Your task to perform on an android device: change the clock display to digital Image 0: 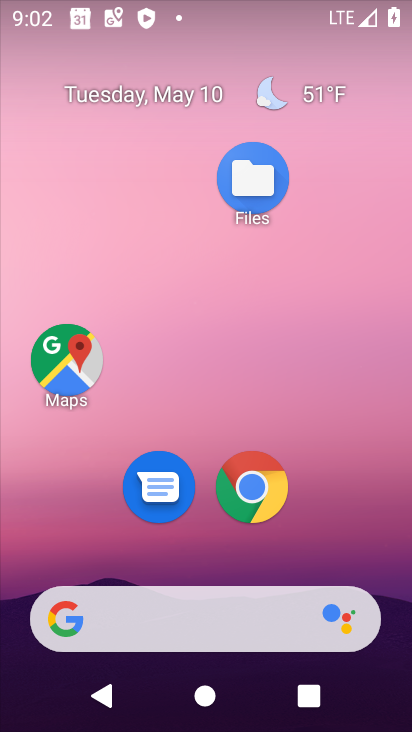
Step 0: drag from (200, 549) to (161, 12)
Your task to perform on an android device: change the clock display to digital Image 1: 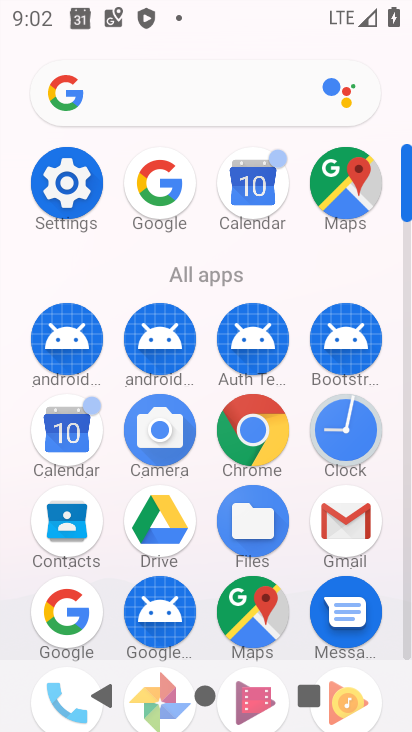
Step 1: click (343, 440)
Your task to perform on an android device: change the clock display to digital Image 2: 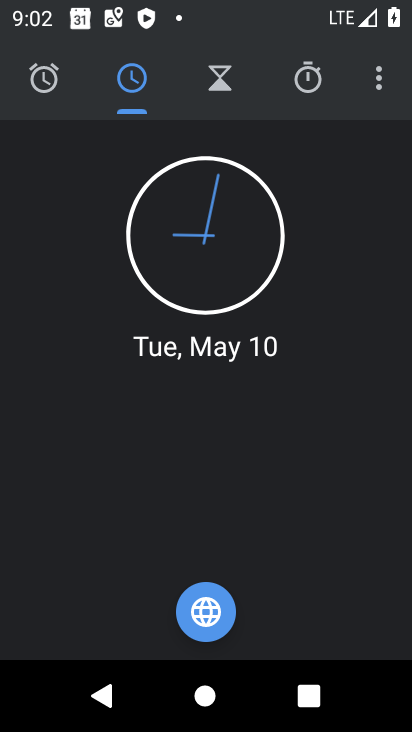
Step 2: click (359, 83)
Your task to perform on an android device: change the clock display to digital Image 3: 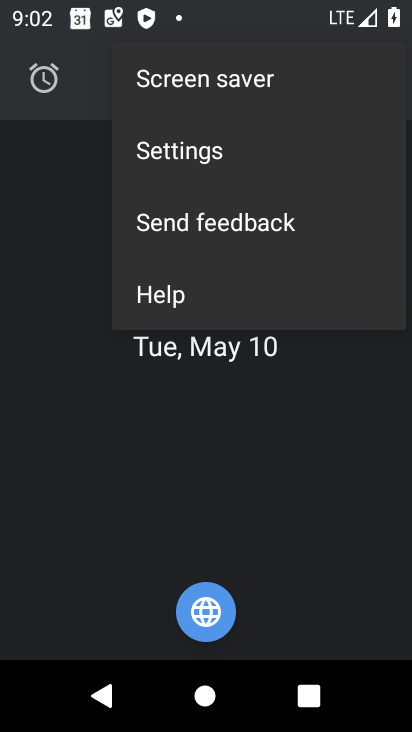
Step 3: click (233, 149)
Your task to perform on an android device: change the clock display to digital Image 4: 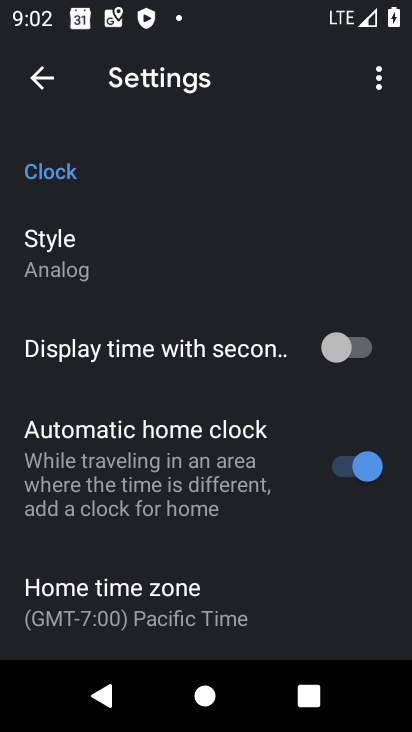
Step 4: click (96, 265)
Your task to perform on an android device: change the clock display to digital Image 5: 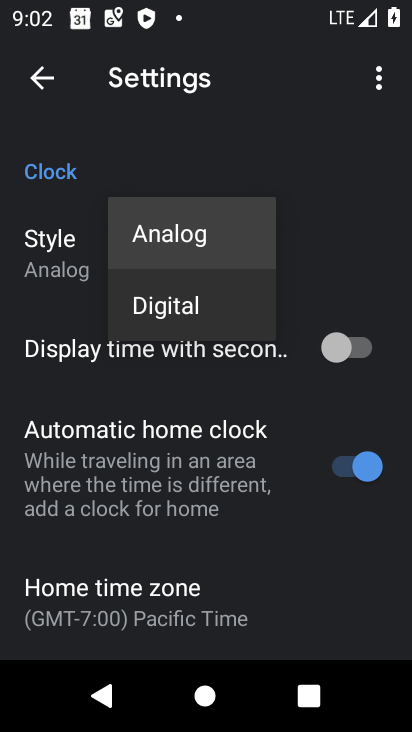
Step 5: click (165, 295)
Your task to perform on an android device: change the clock display to digital Image 6: 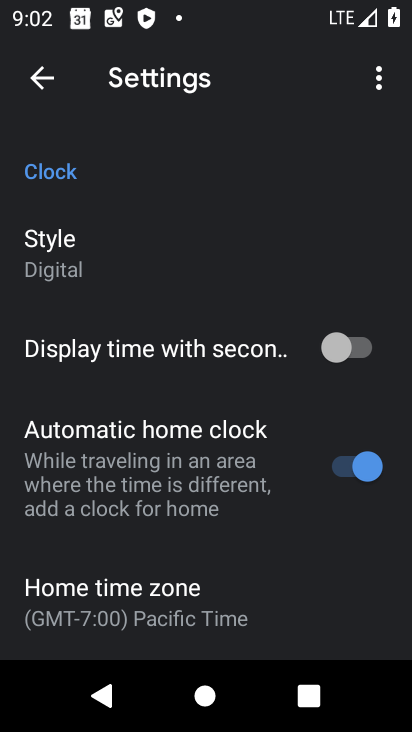
Step 6: task complete